Your task to perform on an android device: move a message to another label in the gmail app Image 0: 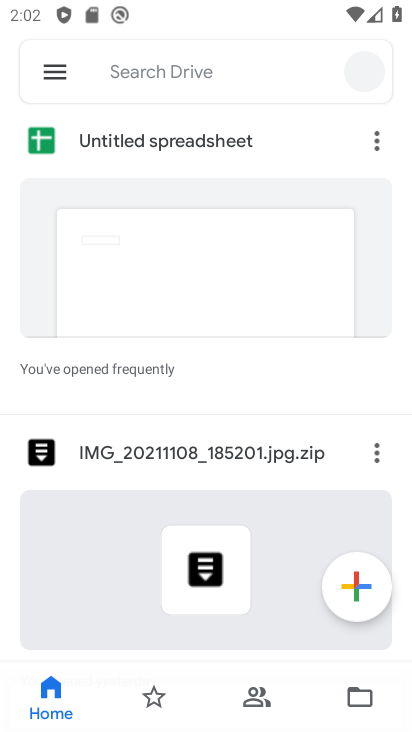
Step 0: press home button
Your task to perform on an android device: move a message to another label in the gmail app Image 1: 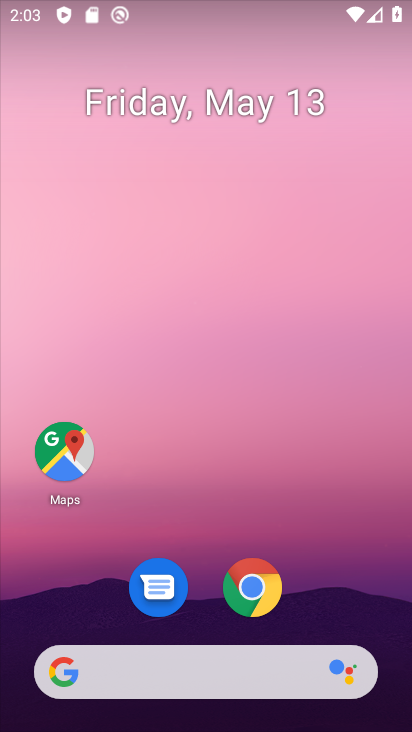
Step 1: drag from (287, 639) to (362, 13)
Your task to perform on an android device: move a message to another label in the gmail app Image 2: 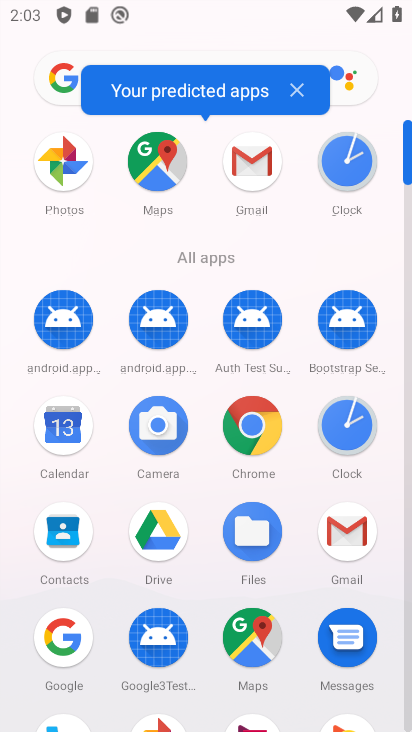
Step 2: click (267, 153)
Your task to perform on an android device: move a message to another label in the gmail app Image 3: 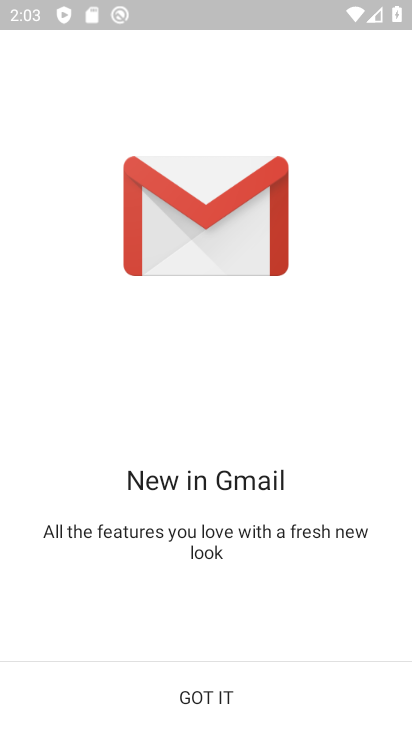
Step 3: click (202, 676)
Your task to perform on an android device: move a message to another label in the gmail app Image 4: 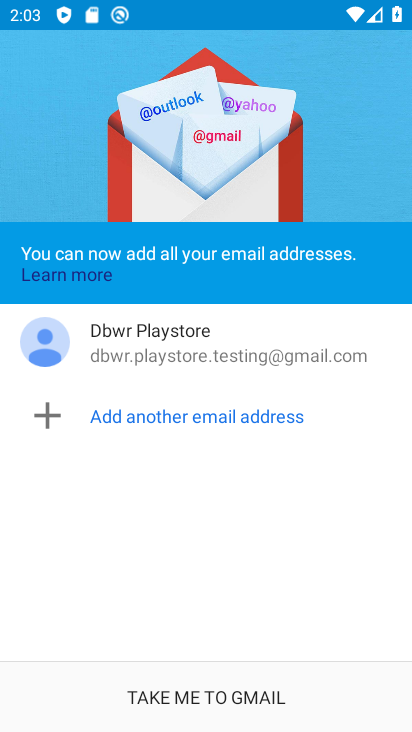
Step 4: click (198, 687)
Your task to perform on an android device: move a message to another label in the gmail app Image 5: 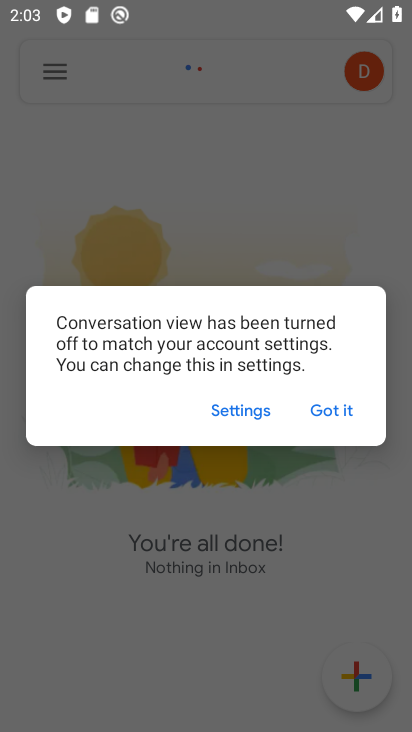
Step 5: click (327, 402)
Your task to perform on an android device: move a message to another label in the gmail app Image 6: 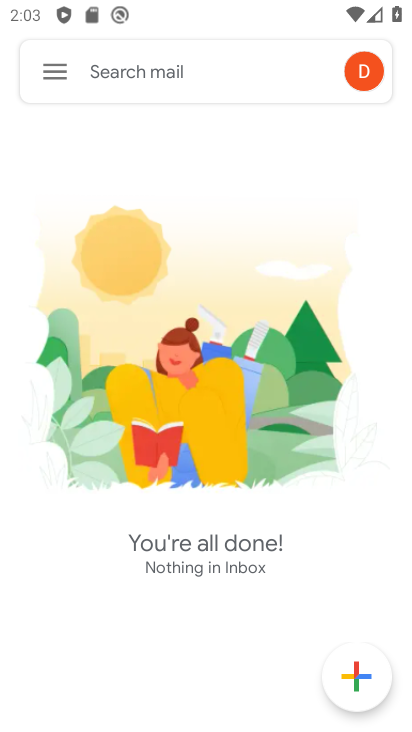
Step 6: click (42, 69)
Your task to perform on an android device: move a message to another label in the gmail app Image 7: 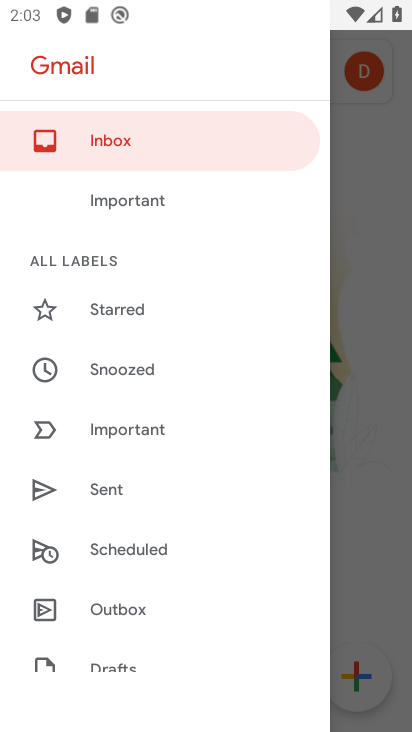
Step 7: task complete